Your task to perform on an android device: change the upload size in google photos Image 0: 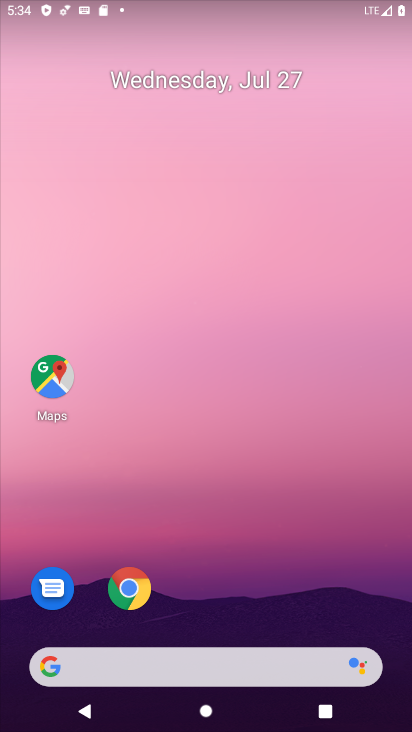
Step 0: drag from (321, 663) to (351, 13)
Your task to perform on an android device: change the upload size in google photos Image 1: 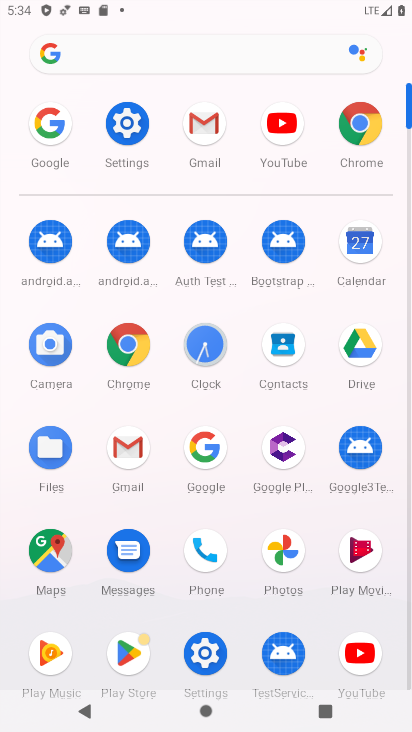
Step 1: click (283, 550)
Your task to perform on an android device: change the upload size in google photos Image 2: 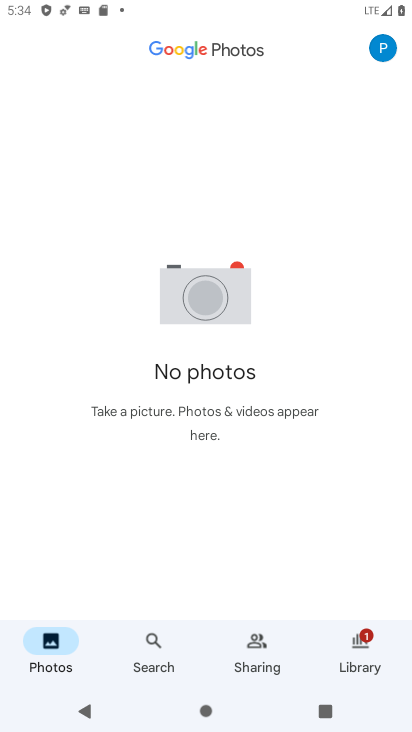
Step 2: click (384, 40)
Your task to perform on an android device: change the upload size in google photos Image 3: 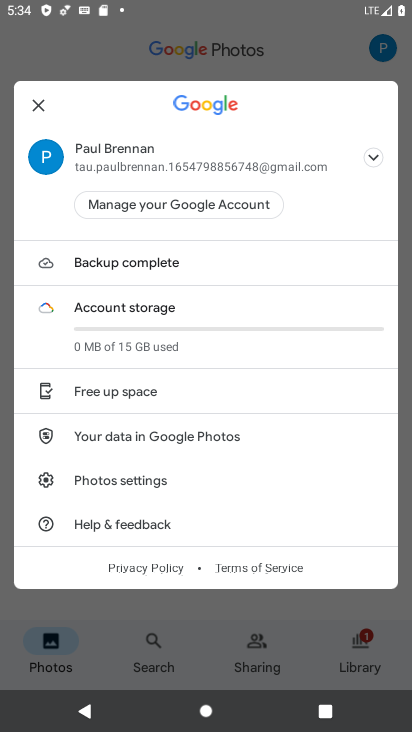
Step 3: click (122, 483)
Your task to perform on an android device: change the upload size in google photos Image 4: 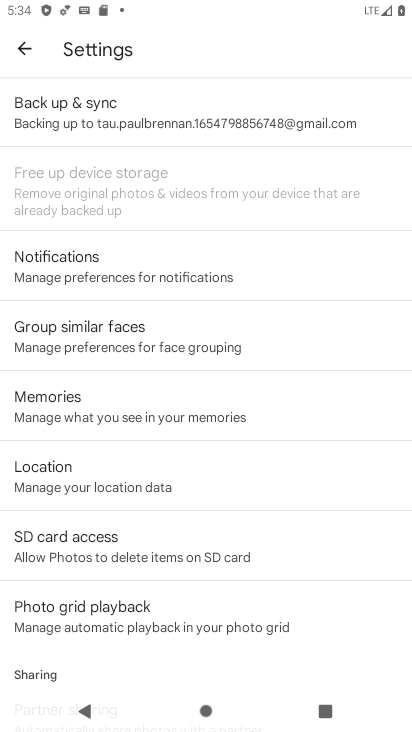
Step 4: click (122, 124)
Your task to perform on an android device: change the upload size in google photos Image 5: 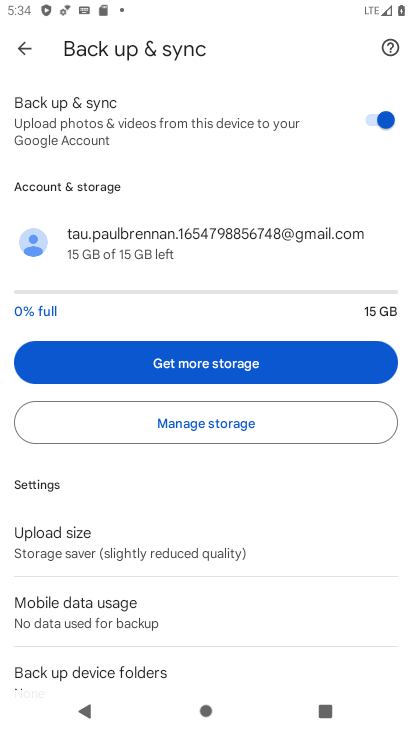
Step 5: click (111, 544)
Your task to perform on an android device: change the upload size in google photos Image 6: 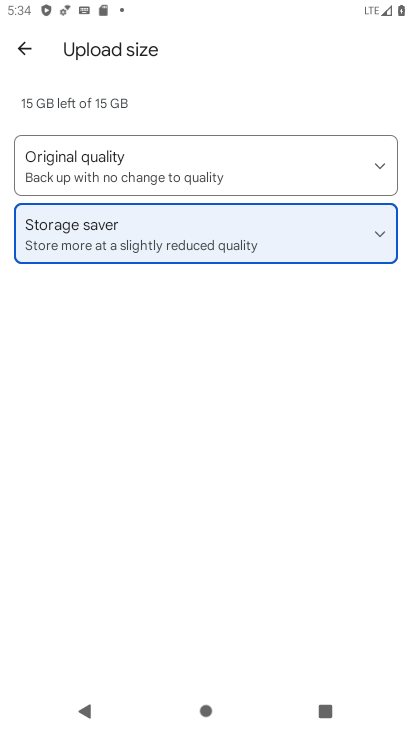
Step 6: click (131, 161)
Your task to perform on an android device: change the upload size in google photos Image 7: 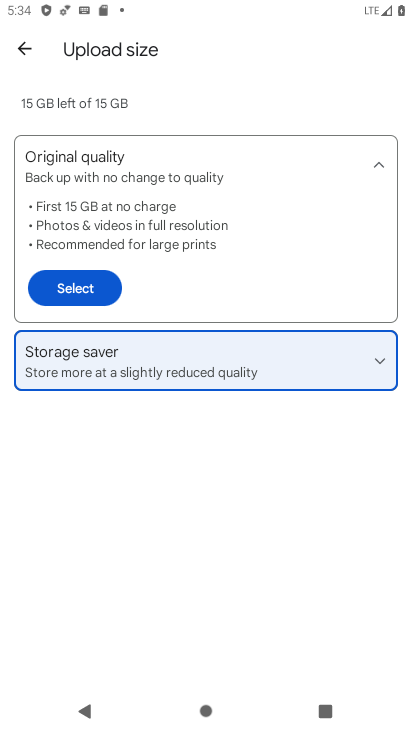
Step 7: click (88, 279)
Your task to perform on an android device: change the upload size in google photos Image 8: 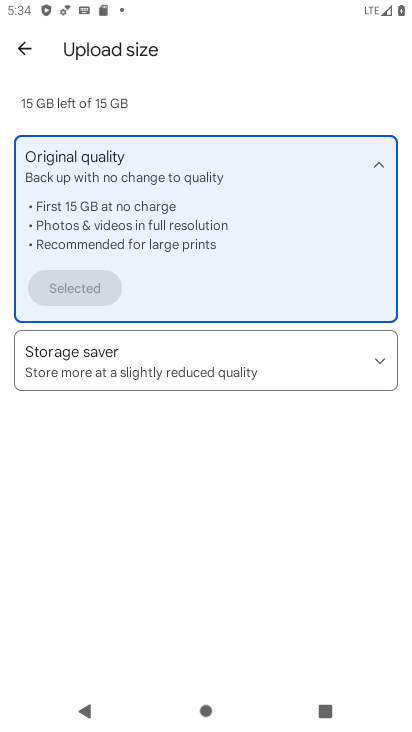
Step 8: task complete